Your task to perform on an android device: Open display settings Image 0: 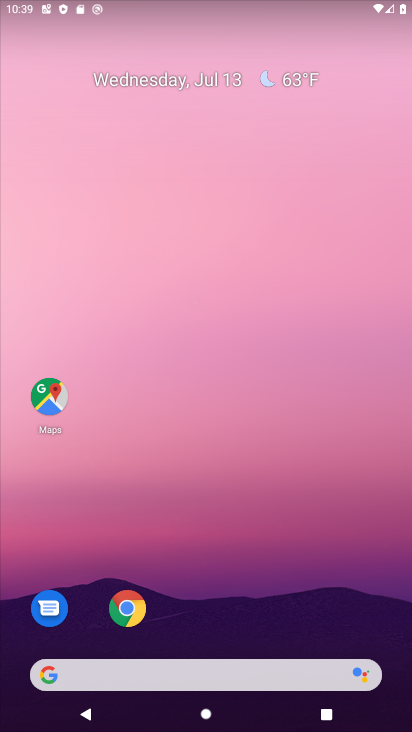
Step 0: drag from (220, 548) to (99, 694)
Your task to perform on an android device: Open display settings Image 1: 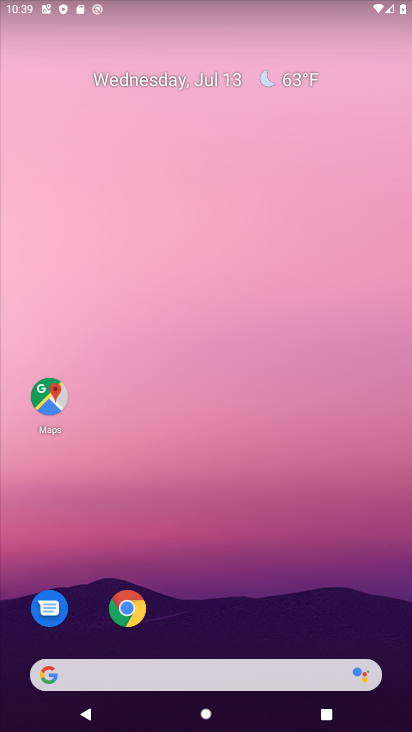
Step 1: drag from (241, 593) to (371, 1)
Your task to perform on an android device: Open display settings Image 2: 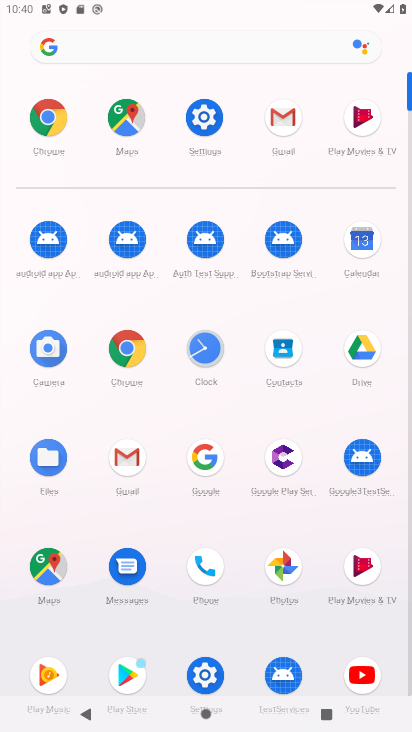
Step 2: click (213, 676)
Your task to perform on an android device: Open display settings Image 3: 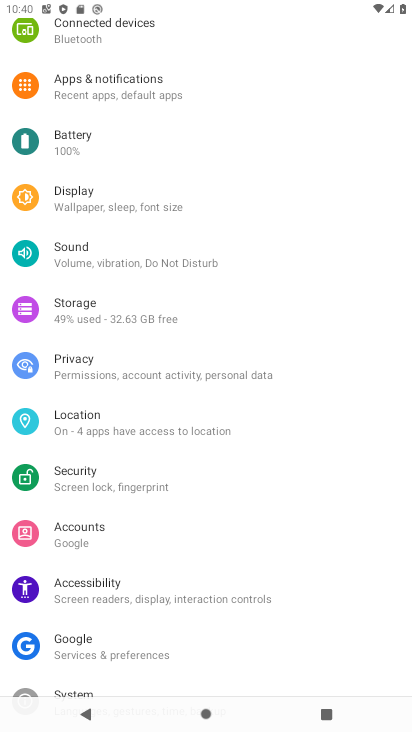
Step 3: click (90, 199)
Your task to perform on an android device: Open display settings Image 4: 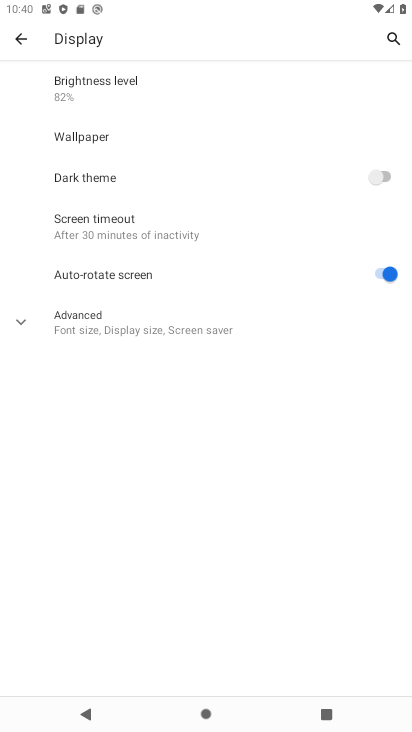
Step 4: task complete